Your task to perform on an android device: change your default location settings in chrome Image 0: 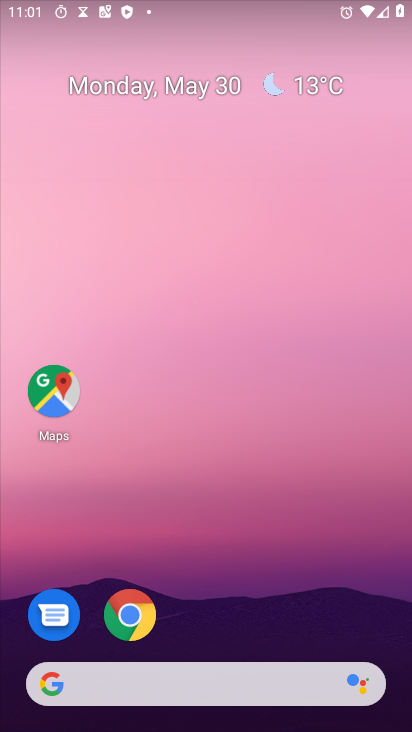
Step 0: drag from (320, 462) to (341, 99)
Your task to perform on an android device: change your default location settings in chrome Image 1: 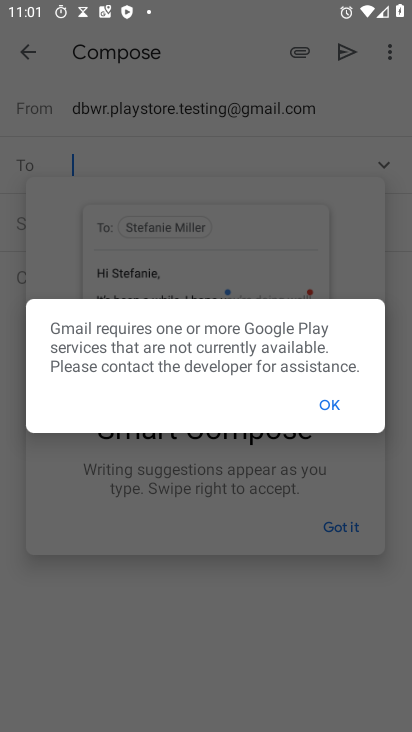
Step 1: press home button
Your task to perform on an android device: change your default location settings in chrome Image 2: 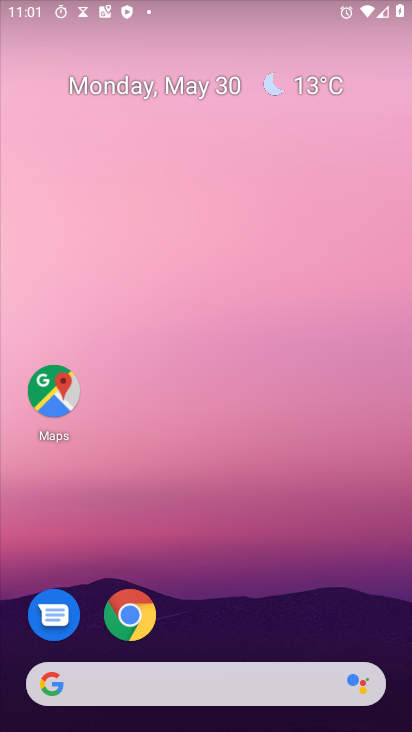
Step 2: drag from (312, 600) to (348, 62)
Your task to perform on an android device: change your default location settings in chrome Image 3: 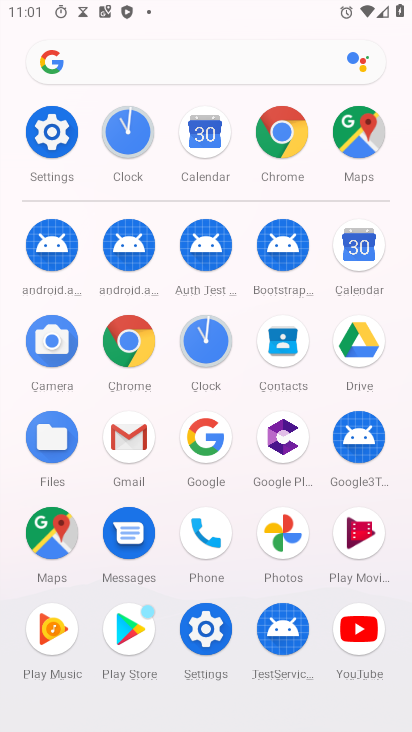
Step 3: click (287, 120)
Your task to perform on an android device: change your default location settings in chrome Image 4: 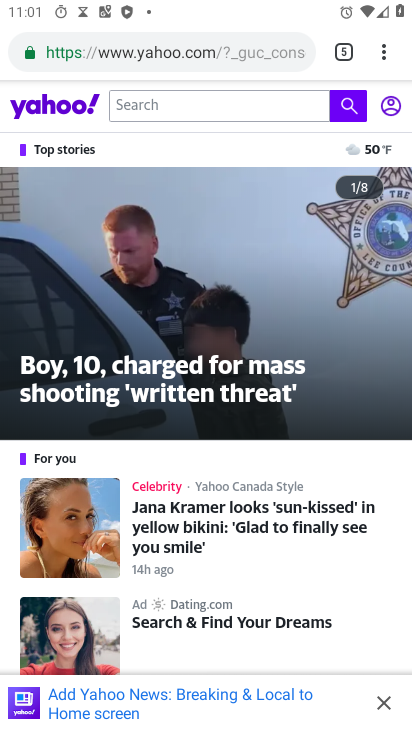
Step 4: click (386, 51)
Your task to perform on an android device: change your default location settings in chrome Image 5: 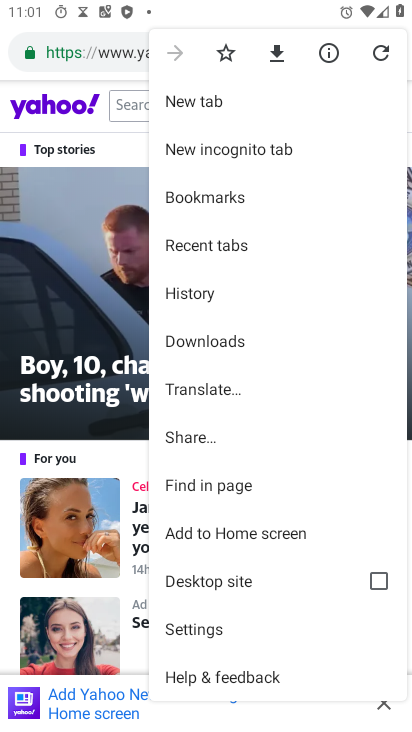
Step 5: drag from (245, 537) to (275, 182)
Your task to perform on an android device: change your default location settings in chrome Image 6: 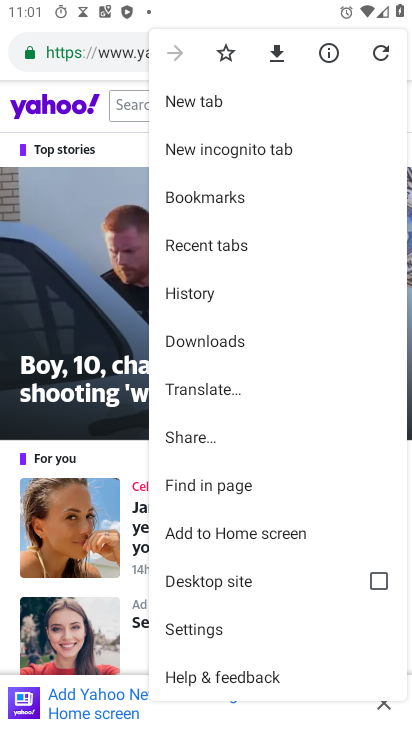
Step 6: click (223, 631)
Your task to perform on an android device: change your default location settings in chrome Image 7: 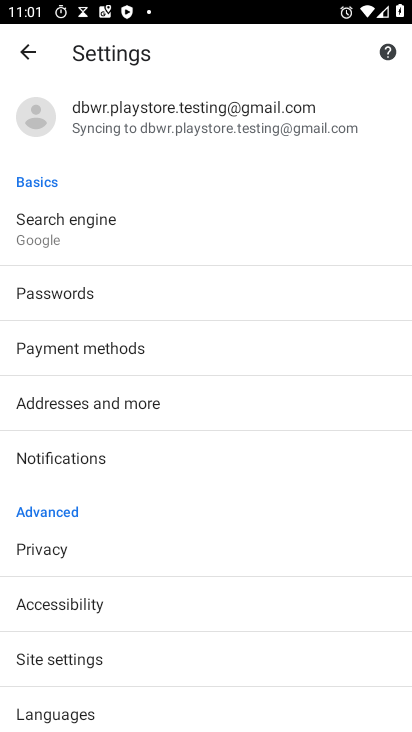
Step 7: click (100, 239)
Your task to perform on an android device: change your default location settings in chrome Image 8: 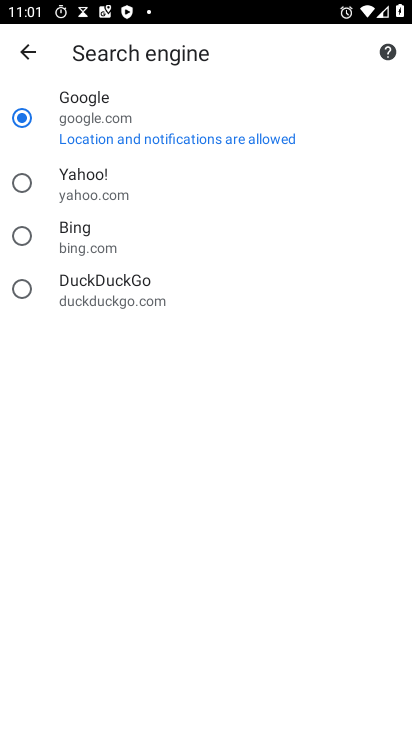
Step 8: task complete